Your task to perform on an android device: turn off airplane mode Image 0: 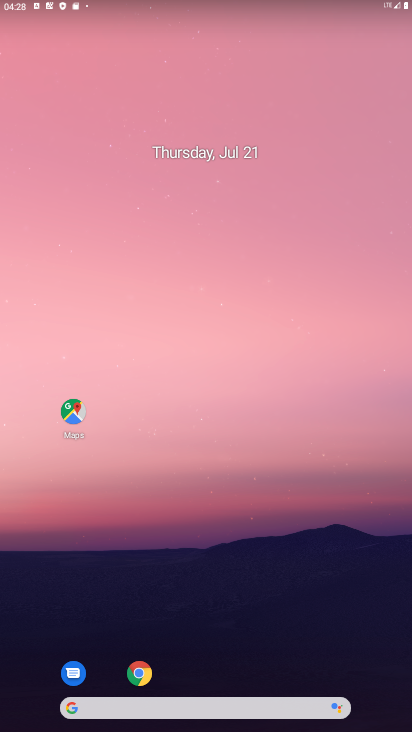
Step 0: drag from (356, 671) to (317, 359)
Your task to perform on an android device: turn off airplane mode Image 1: 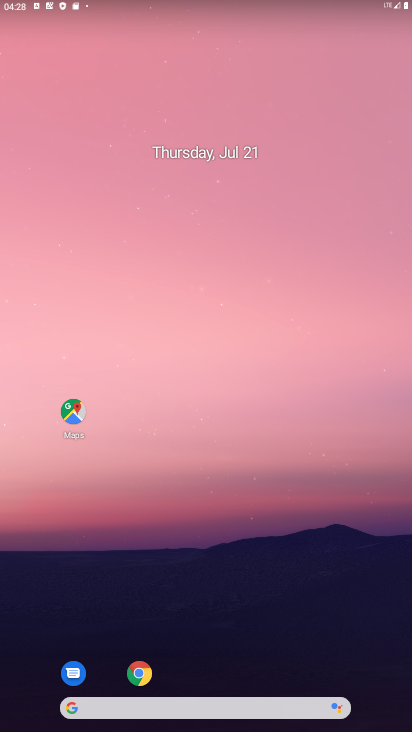
Step 1: drag from (380, 678) to (323, 246)
Your task to perform on an android device: turn off airplane mode Image 2: 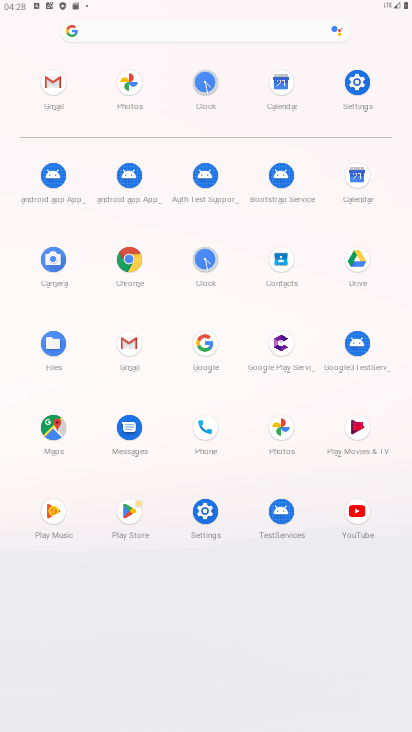
Step 2: click (201, 510)
Your task to perform on an android device: turn off airplane mode Image 3: 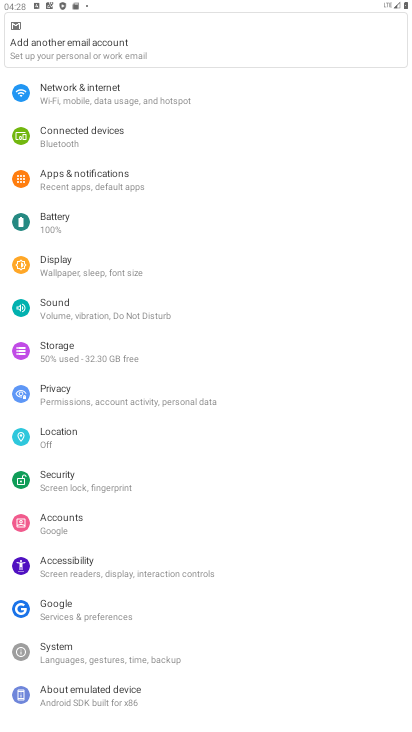
Step 3: click (65, 87)
Your task to perform on an android device: turn off airplane mode Image 4: 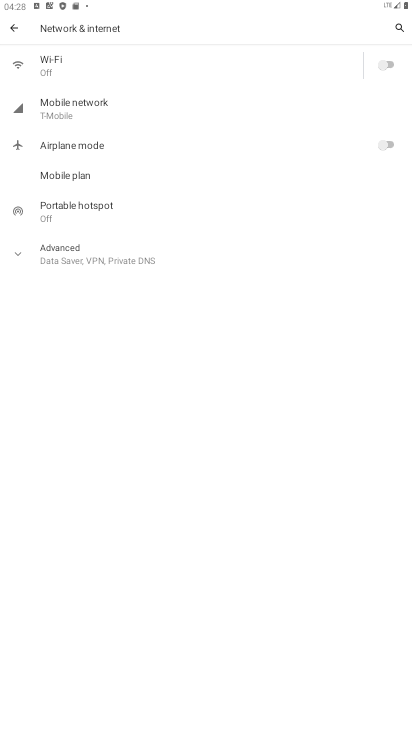
Step 4: task complete